Your task to perform on an android device: Search for sushi restaurants on Maps Image 0: 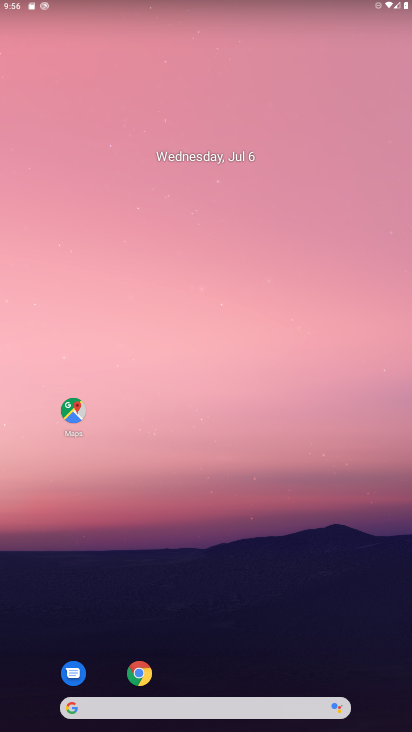
Step 0: click (60, 412)
Your task to perform on an android device: Search for sushi restaurants on Maps Image 1: 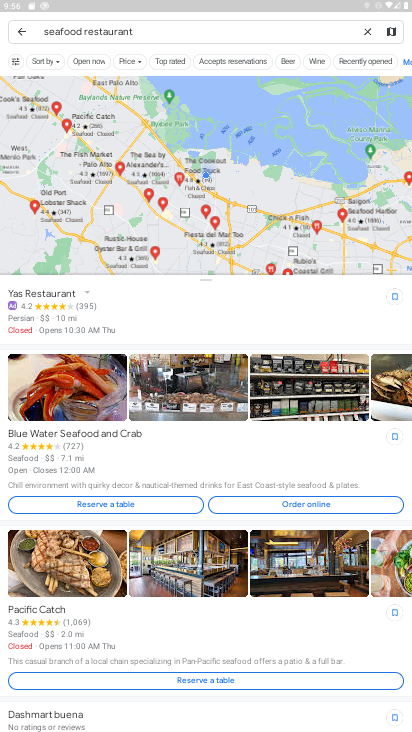
Step 1: click (370, 27)
Your task to perform on an android device: Search for sushi restaurants on Maps Image 2: 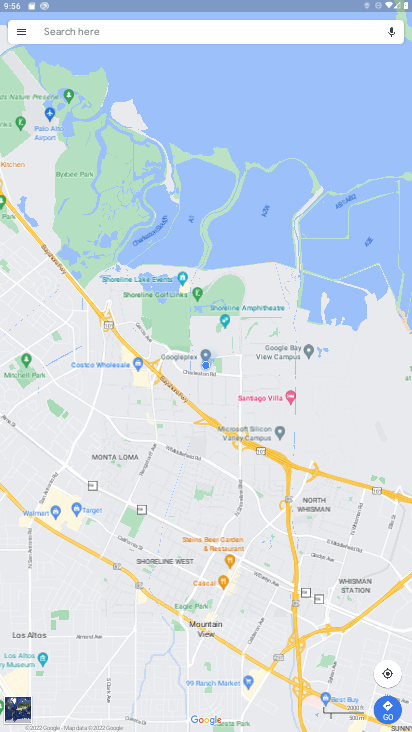
Step 2: click (265, 29)
Your task to perform on an android device: Search for sushi restaurants on Maps Image 3: 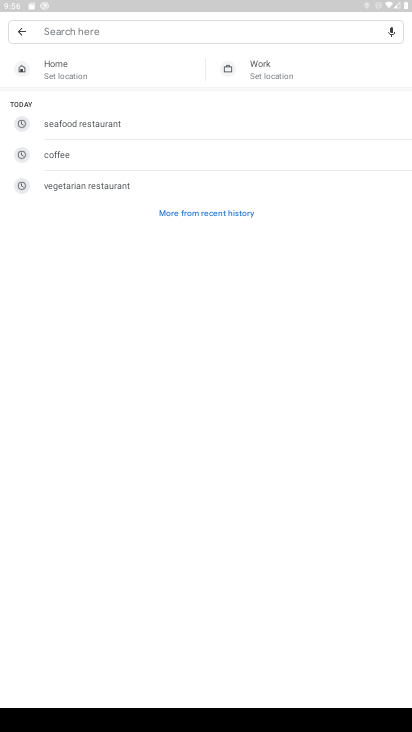
Step 3: type " sushi restaurants"
Your task to perform on an android device: Search for sushi restaurants on Maps Image 4: 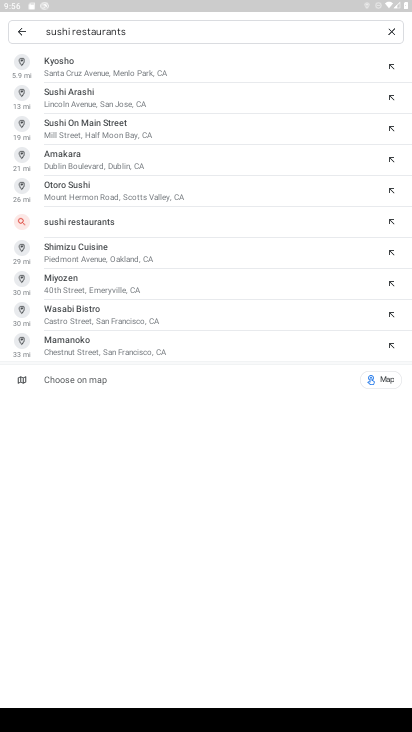
Step 4: click (200, 217)
Your task to perform on an android device: Search for sushi restaurants on Maps Image 5: 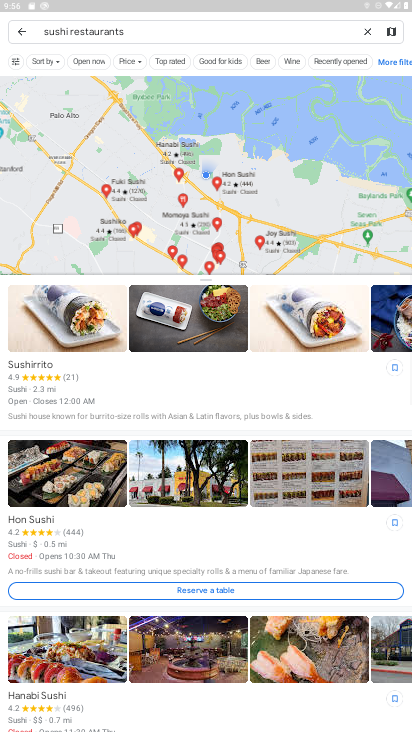
Step 5: task complete